Your task to perform on an android device: Open the map Image 0: 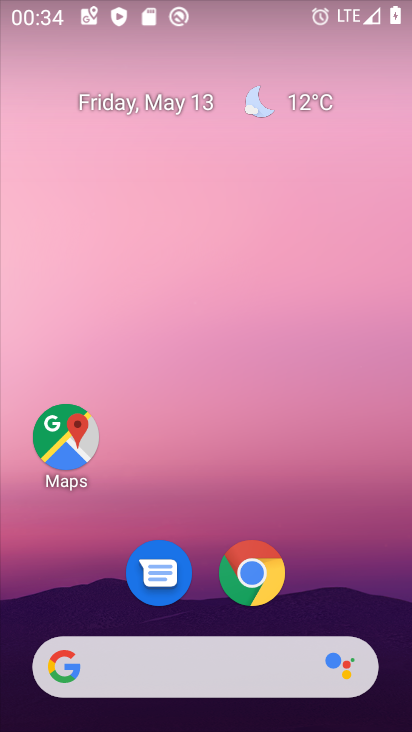
Step 0: click (67, 448)
Your task to perform on an android device: Open the map Image 1: 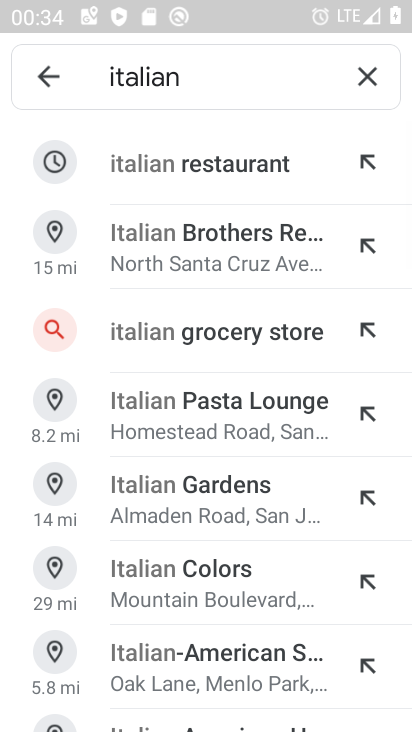
Step 1: click (367, 79)
Your task to perform on an android device: Open the map Image 2: 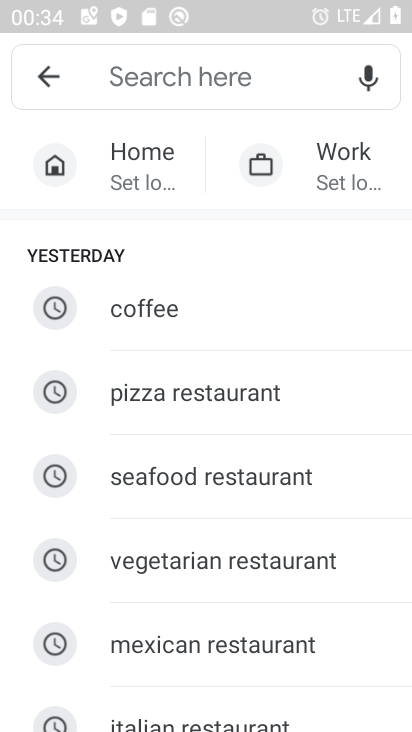
Step 2: click (61, 80)
Your task to perform on an android device: Open the map Image 3: 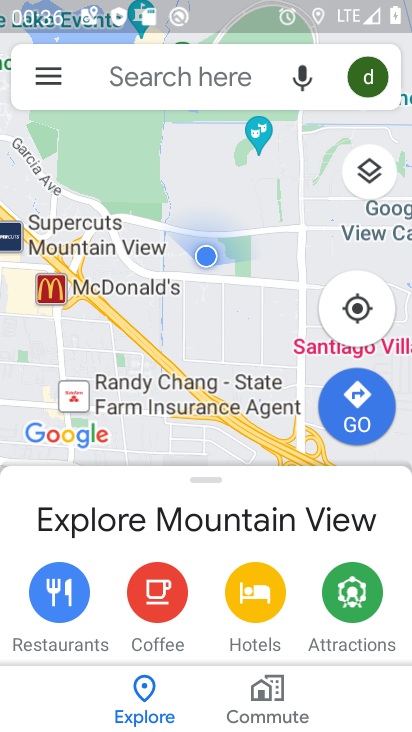
Step 3: task complete